Your task to perform on an android device: turn off data saver in the chrome app Image 0: 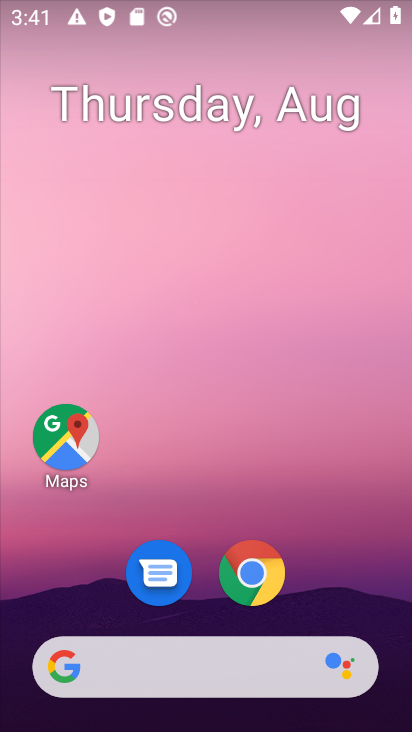
Step 0: drag from (307, 662) to (307, 302)
Your task to perform on an android device: turn off data saver in the chrome app Image 1: 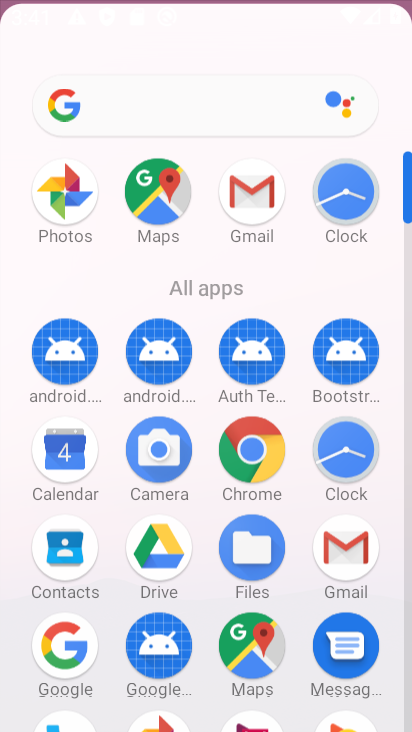
Step 1: click (290, 328)
Your task to perform on an android device: turn off data saver in the chrome app Image 2: 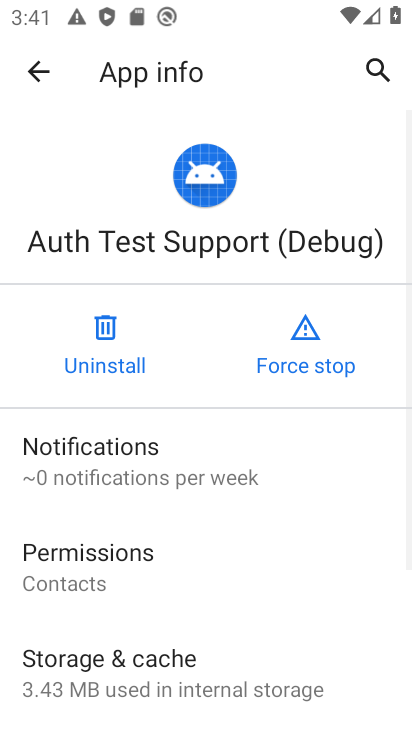
Step 2: click (31, 67)
Your task to perform on an android device: turn off data saver in the chrome app Image 3: 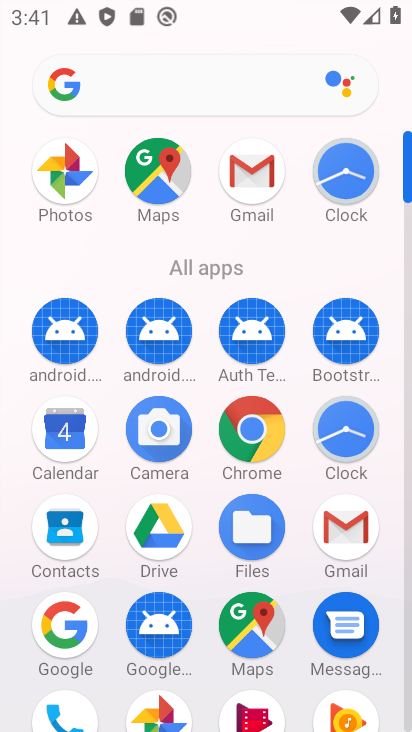
Step 3: click (242, 420)
Your task to perform on an android device: turn off data saver in the chrome app Image 4: 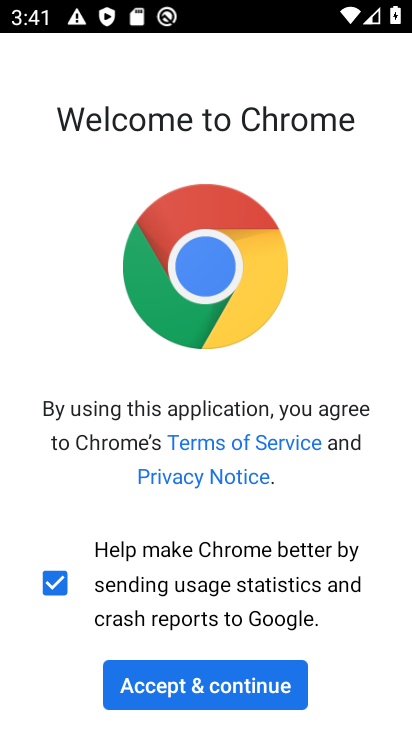
Step 4: click (206, 693)
Your task to perform on an android device: turn off data saver in the chrome app Image 5: 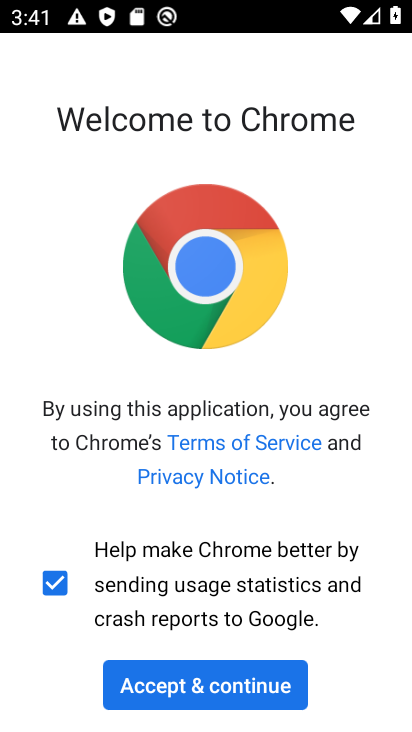
Step 5: click (206, 693)
Your task to perform on an android device: turn off data saver in the chrome app Image 6: 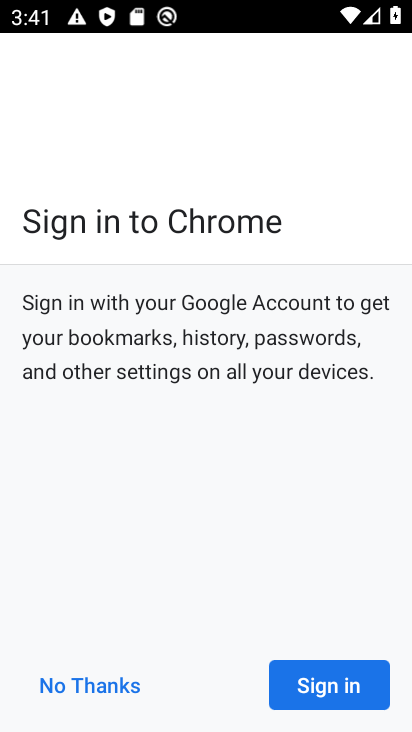
Step 6: click (212, 691)
Your task to perform on an android device: turn off data saver in the chrome app Image 7: 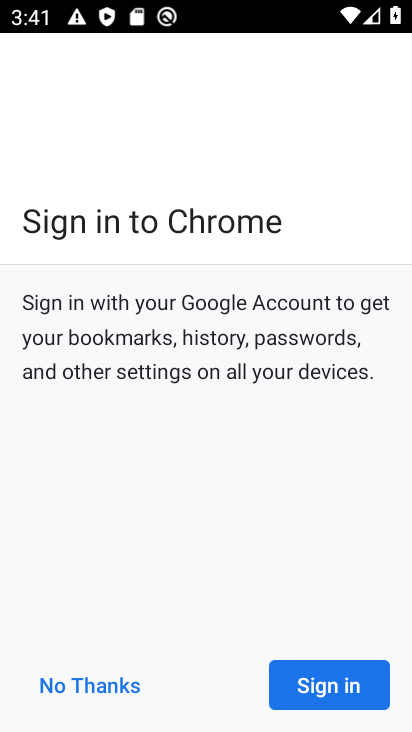
Step 7: click (101, 675)
Your task to perform on an android device: turn off data saver in the chrome app Image 8: 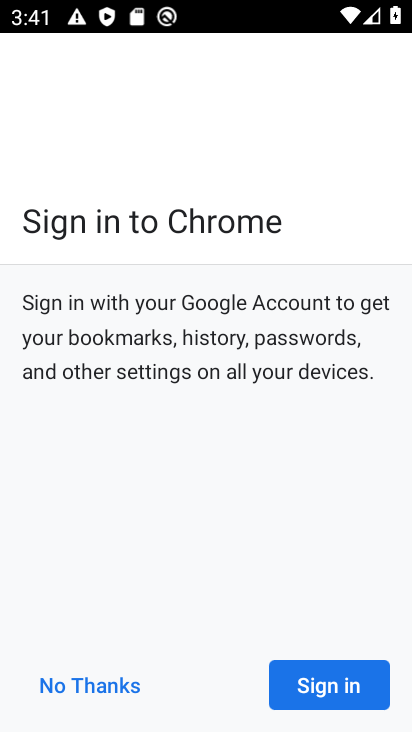
Step 8: click (101, 675)
Your task to perform on an android device: turn off data saver in the chrome app Image 9: 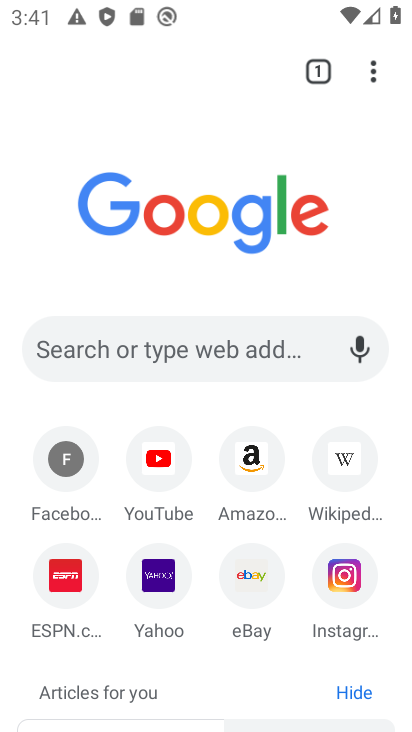
Step 9: drag from (374, 69) to (117, 603)
Your task to perform on an android device: turn off data saver in the chrome app Image 10: 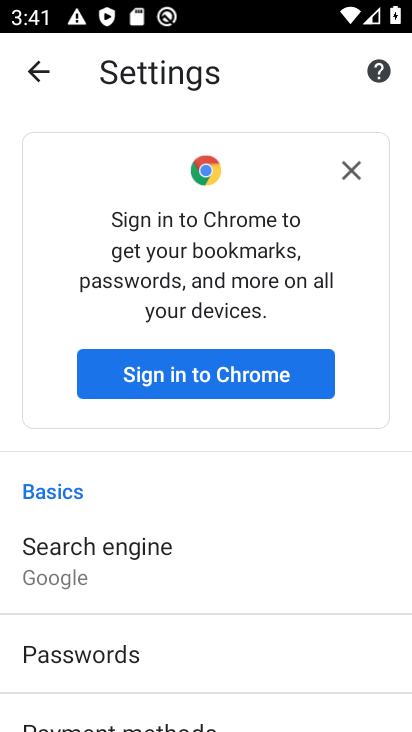
Step 10: click (349, 167)
Your task to perform on an android device: turn off data saver in the chrome app Image 11: 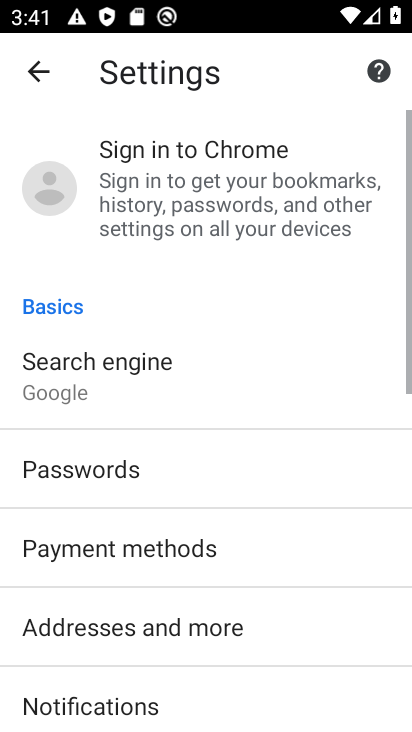
Step 11: drag from (100, 672) to (86, 207)
Your task to perform on an android device: turn off data saver in the chrome app Image 12: 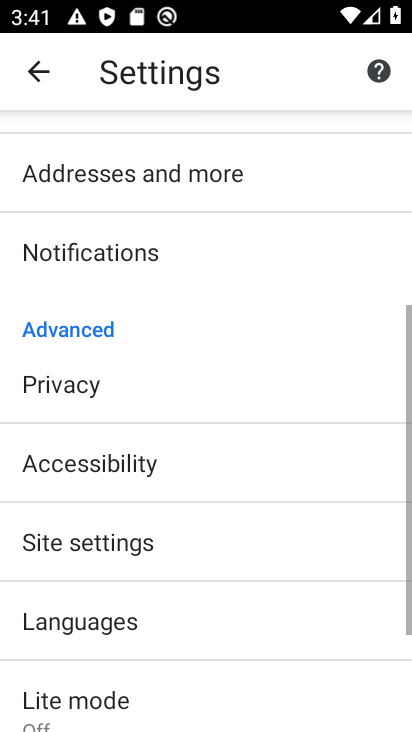
Step 12: drag from (149, 429) to (149, 205)
Your task to perform on an android device: turn off data saver in the chrome app Image 13: 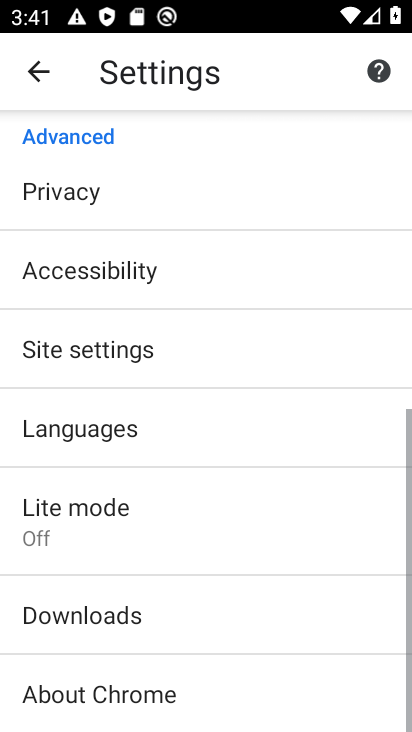
Step 13: drag from (149, 556) to (149, 402)
Your task to perform on an android device: turn off data saver in the chrome app Image 14: 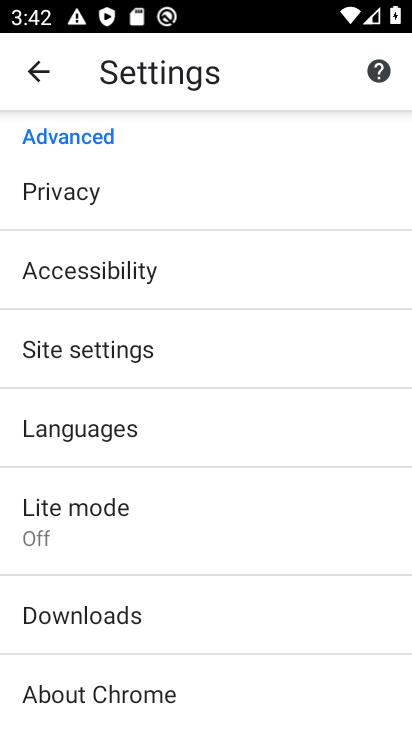
Step 14: click (85, 511)
Your task to perform on an android device: turn off data saver in the chrome app Image 15: 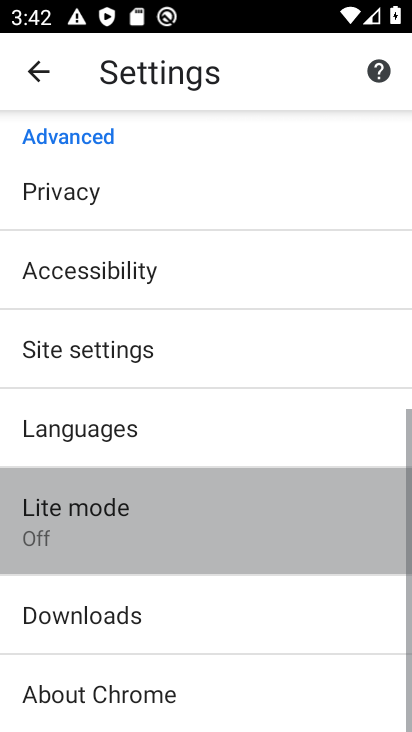
Step 15: click (84, 507)
Your task to perform on an android device: turn off data saver in the chrome app Image 16: 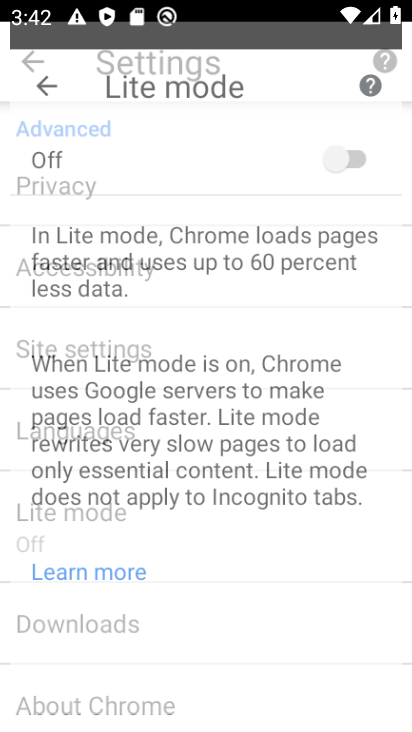
Step 16: click (84, 507)
Your task to perform on an android device: turn off data saver in the chrome app Image 17: 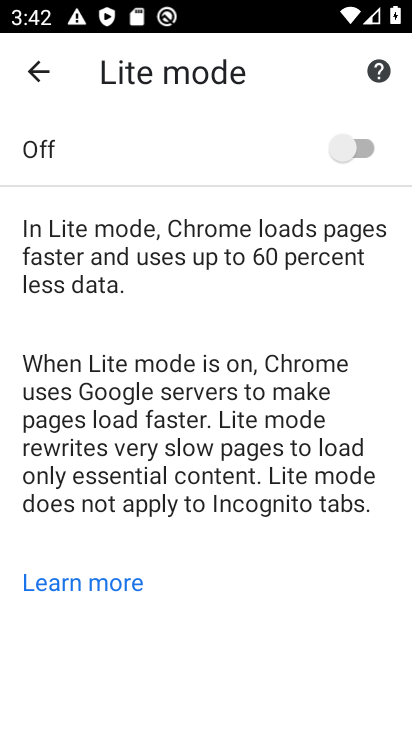
Step 17: task complete